Your task to perform on an android device: Open notification settings Image 0: 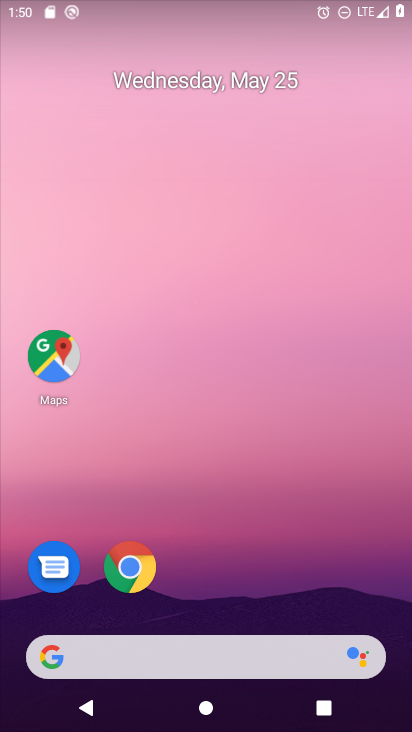
Step 0: drag from (400, 707) to (340, 170)
Your task to perform on an android device: Open notification settings Image 1: 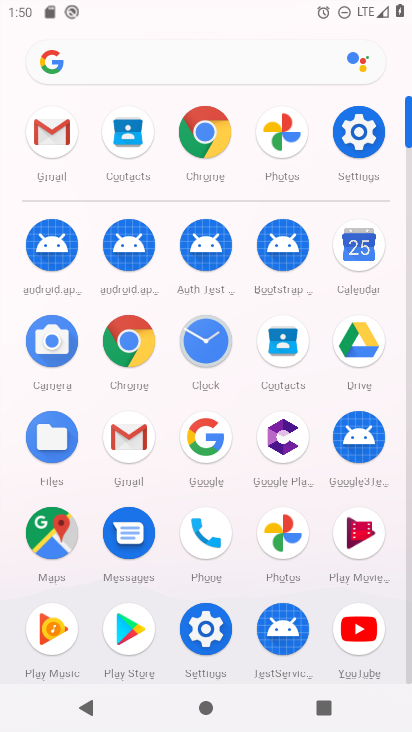
Step 1: click (357, 121)
Your task to perform on an android device: Open notification settings Image 2: 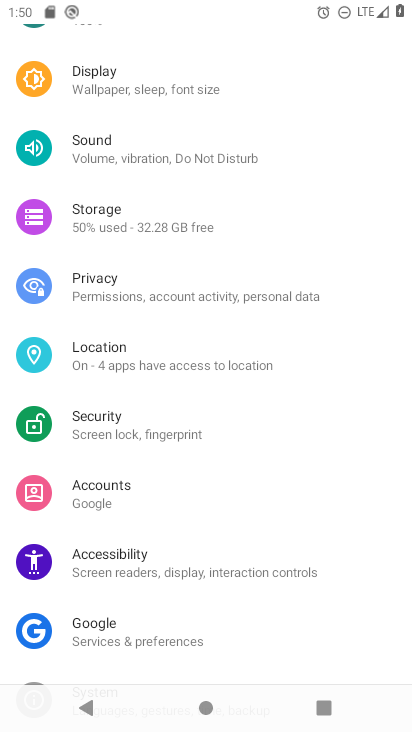
Step 2: drag from (308, 69) to (326, 407)
Your task to perform on an android device: Open notification settings Image 3: 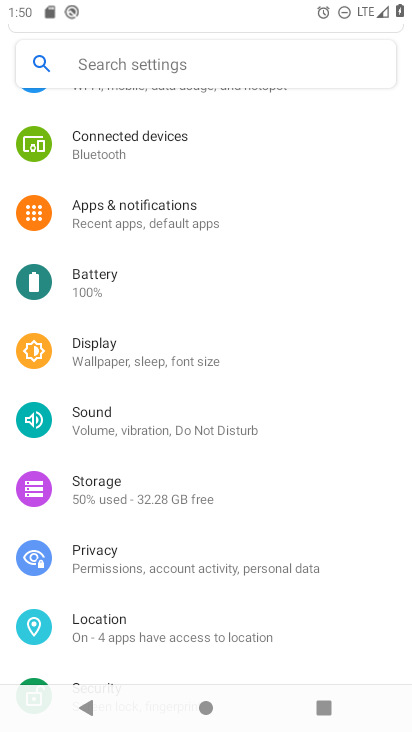
Step 3: click (143, 211)
Your task to perform on an android device: Open notification settings Image 4: 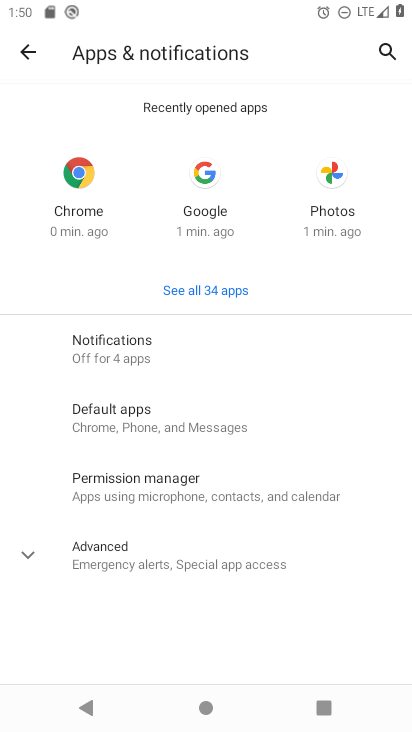
Step 4: click (121, 337)
Your task to perform on an android device: Open notification settings Image 5: 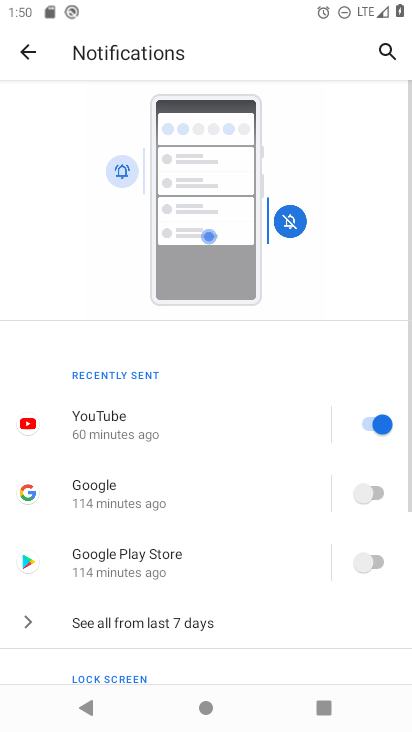
Step 5: drag from (260, 632) to (248, 201)
Your task to perform on an android device: Open notification settings Image 6: 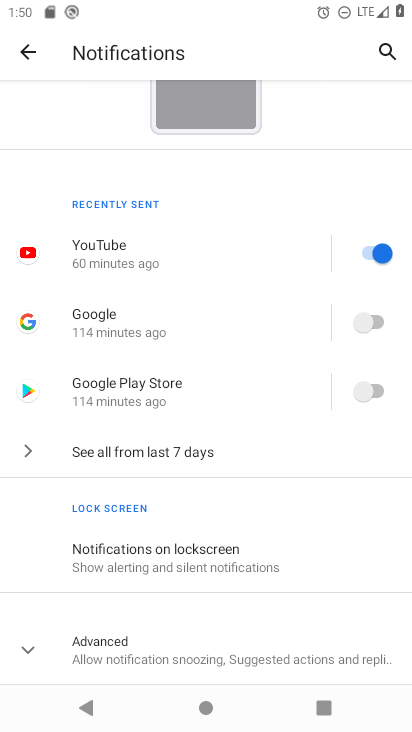
Step 6: click (28, 649)
Your task to perform on an android device: Open notification settings Image 7: 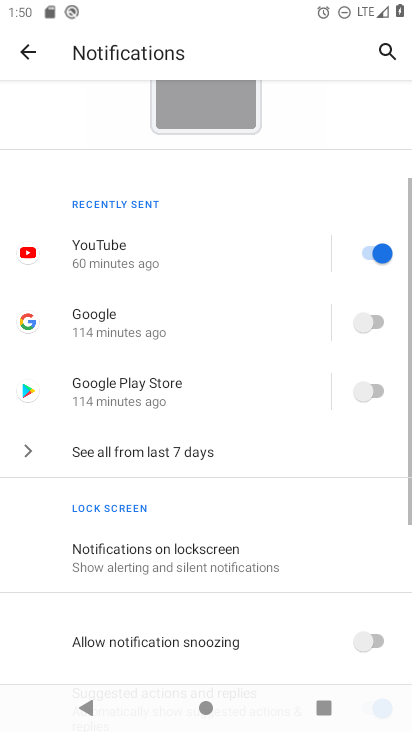
Step 7: task complete